Your task to perform on an android device: Go to internet settings Image 0: 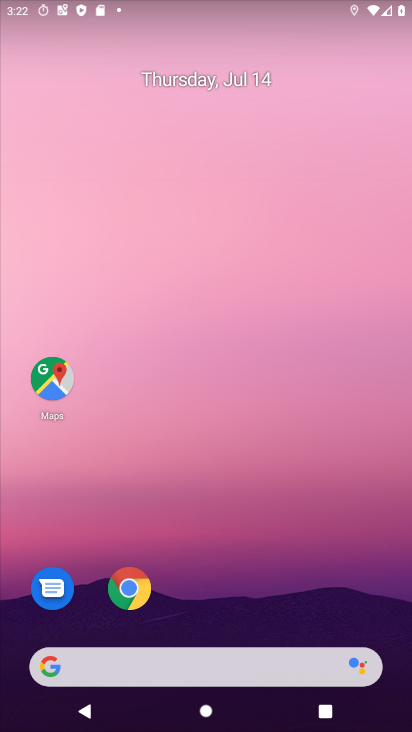
Step 0: drag from (239, 671) to (290, 166)
Your task to perform on an android device: Go to internet settings Image 1: 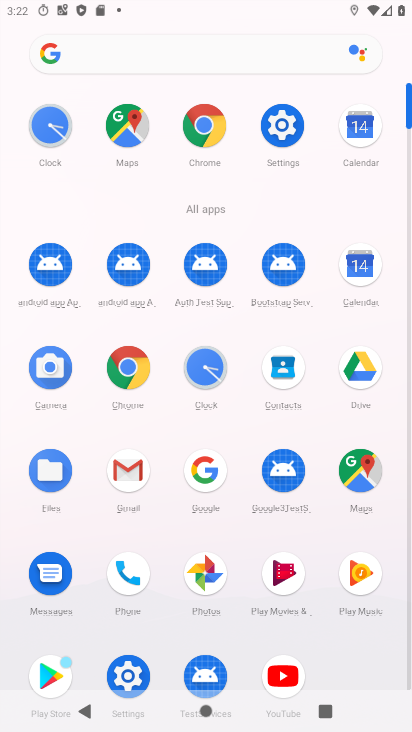
Step 1: click (283, 124)
Your task to perform on an android device: Go to internet settings Image 2: 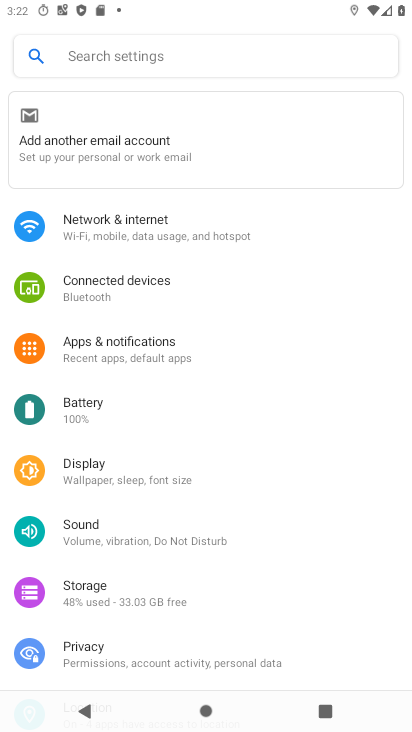
Step 2: click (125, 235)
Your task to perform on an android device: Go to internet settings Image 3: 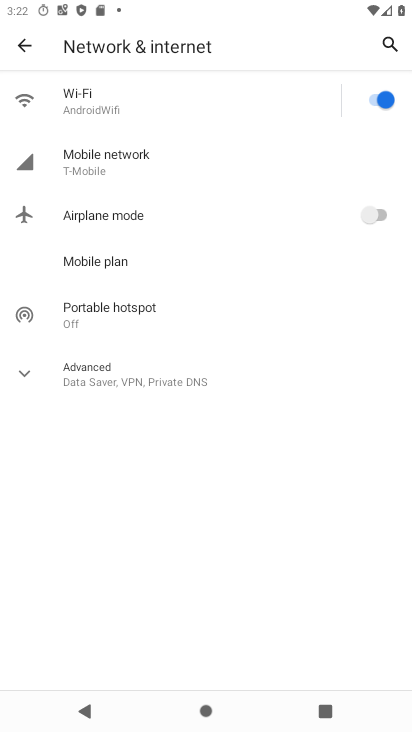
Step 3: task complete